Your task to perform on an android device: open sync settings in chrome Image 0: 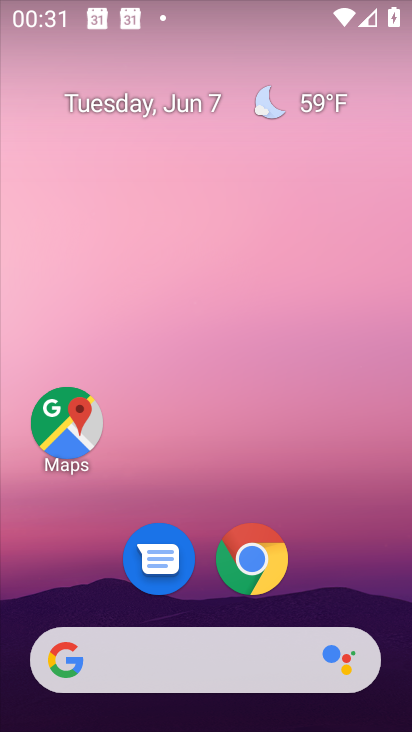
Step 0: click (257, 556)
Your task to perform on an android device: open sync settings in chrome Image 1: 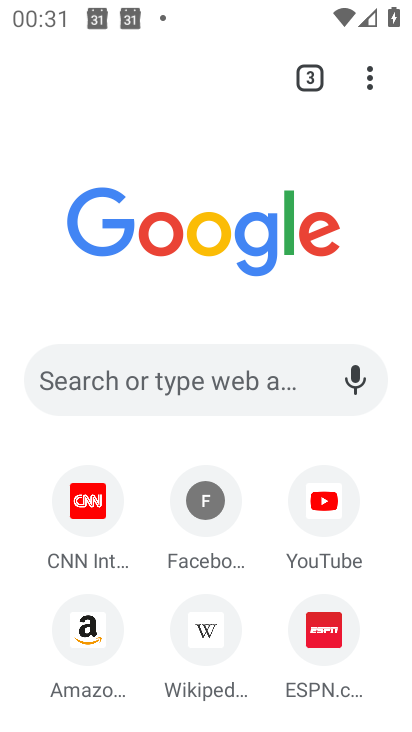
Step 1: click (362, 72)
Your task to perform on an android device: open sync settings in chrome Image 2: 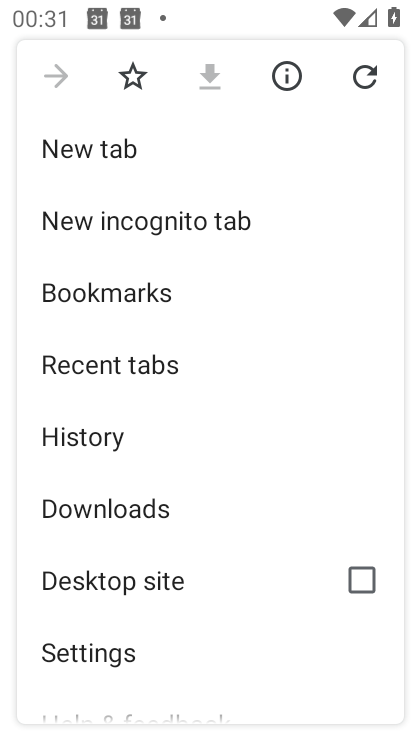
Step 2: click (107, 658)
Your task to perform on an android device: open sync settings in chrome Image 3: 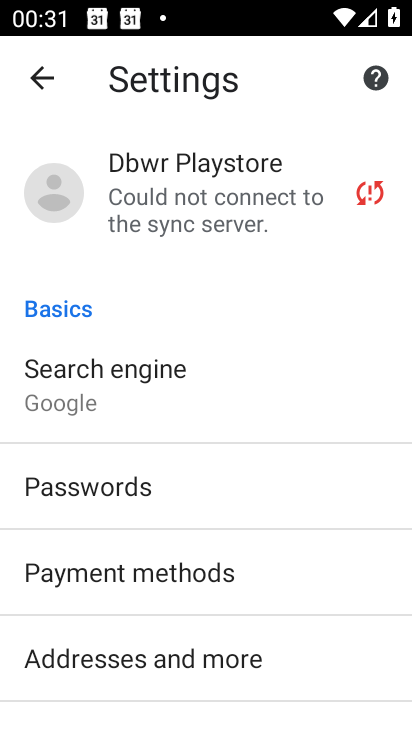
Step 3: drag from (169, 664) to (125, 363)
Your task to perform on an android device: open sync settings in chrome Image 4: 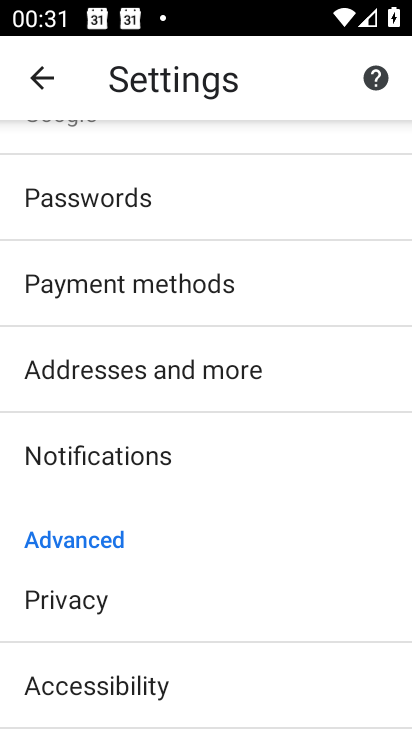
Step 4: drag from (140, 716) to (144, 412)
Your task to perform on an android device: open sync settings in chrome Image 5: 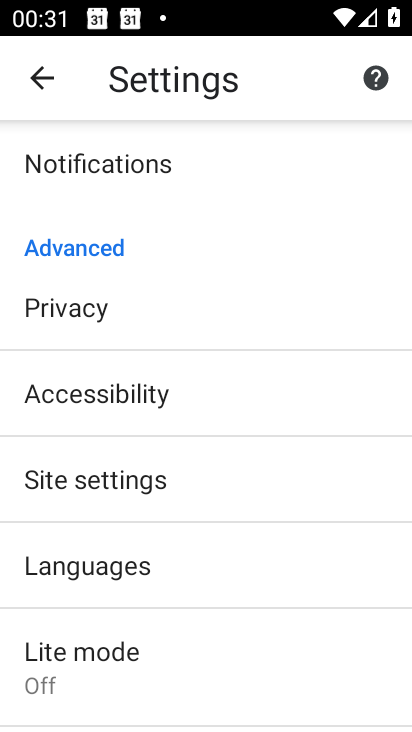
Step 5: click (121, 387)
Your task to perform on an android device: open sync settings in chrome Image 6: 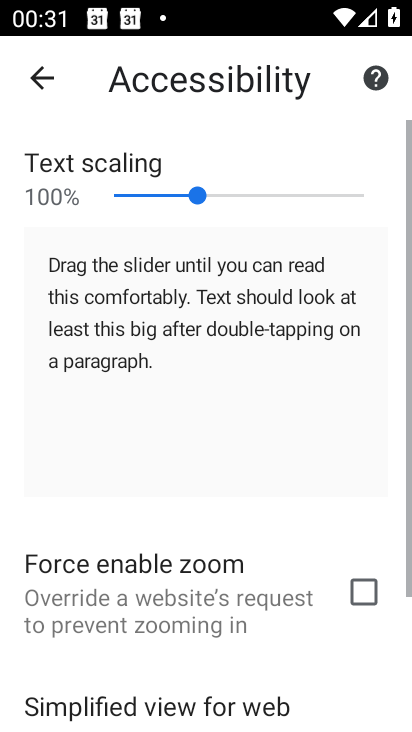
Step 6: drag from (118, 609) to (109, 283)
Your task to perform on an android device: open sync settings in chrome Image 7: 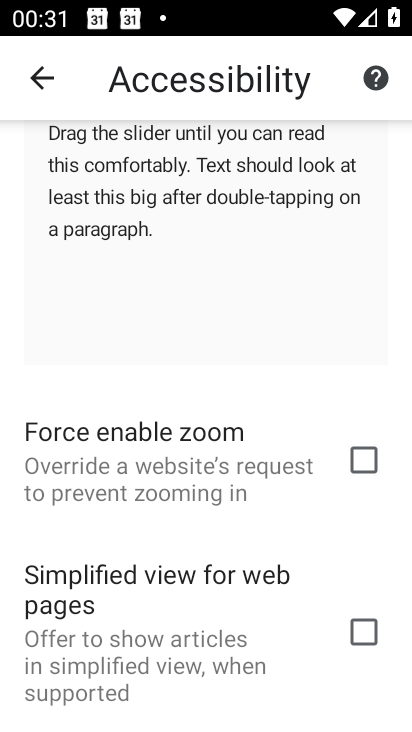
Step 7: click (55, 84)
Your task to perform on an android device: open sync settings in chrome Image 8: 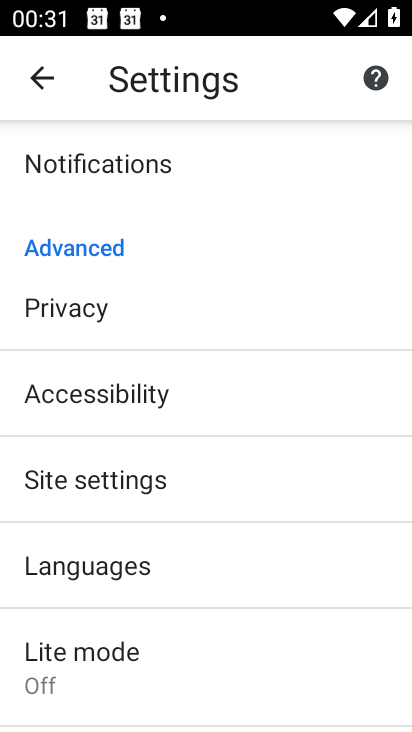
Step 8: click (74, 313)
Your task to perform on an android device: open sync settings in chrome Image 9: 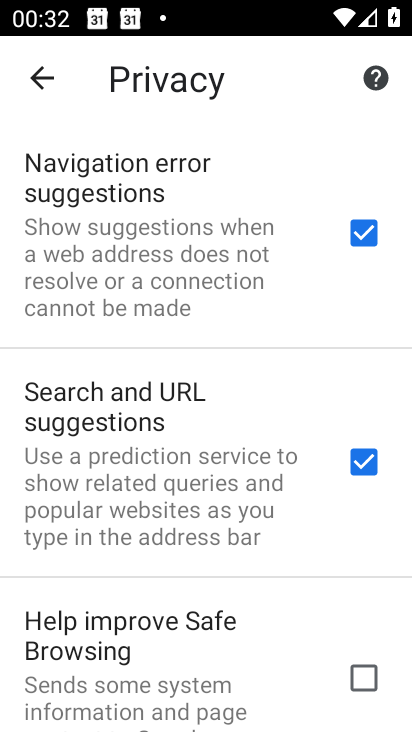
Step 9: drag from (131, 595) to (61, 288)
Your task to perform on an android device: open sync settings in chrome Image 10: 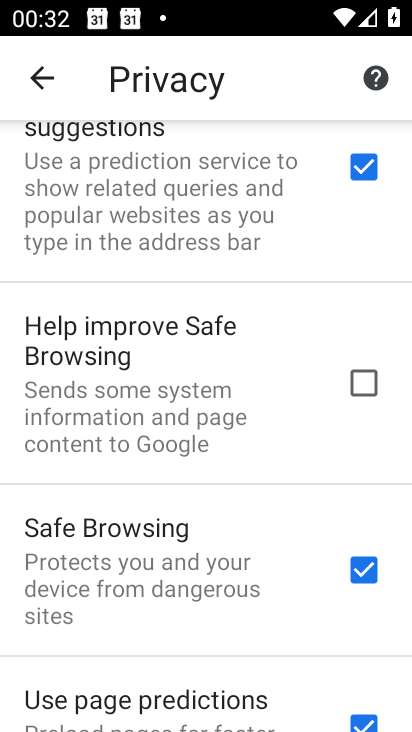
Step 10: drag from (117, 591) to (90, 291)
Your task to perform on an android device: open sync settings in chrome Image 11: 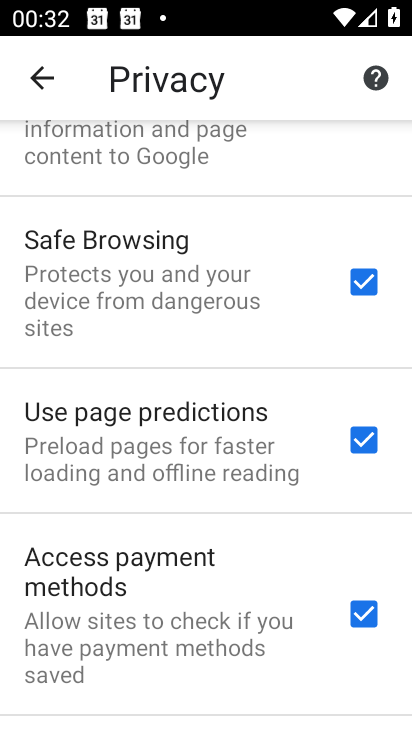
Step 11: drag from (93, 658) to (87, 391)
Your task to perform on an android device: open sync settings in chrome Image 12: 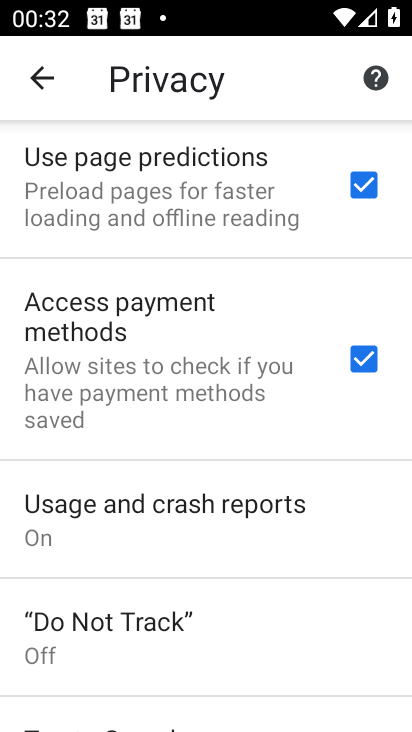
Step 12: drag from (163, 580) to (158, 456)
Your task to perform on an android device: open sync settings in chrome Image 13: 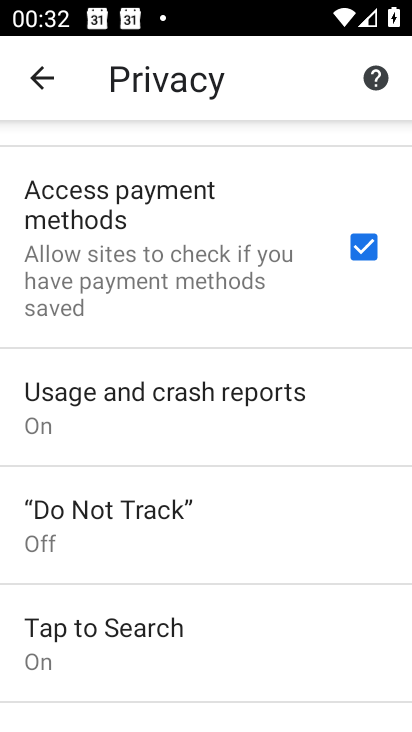
Step 13: drag from (110, 682) to (141, 518)
Your task to perform on an android device: open sync settings in chrome Image 14: 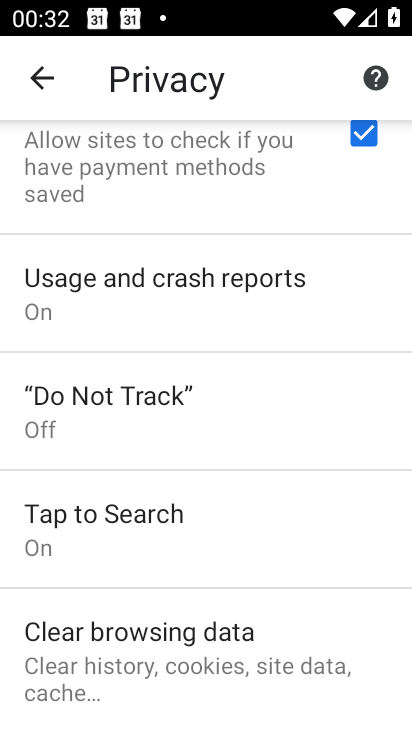
Step 14: drag from (111, 656) to (100, 479)
Your task to perform on an android device: open sync settings in chrome Image 15: 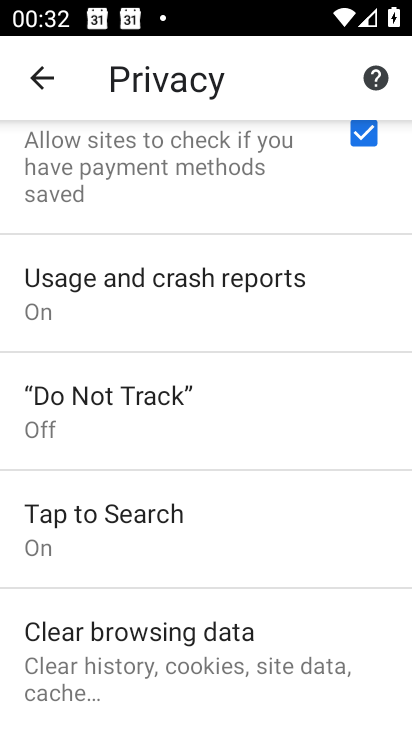
Step 15: click (44, 72)
Your task to perform on an android device: open sync settings in chrome Image 16: 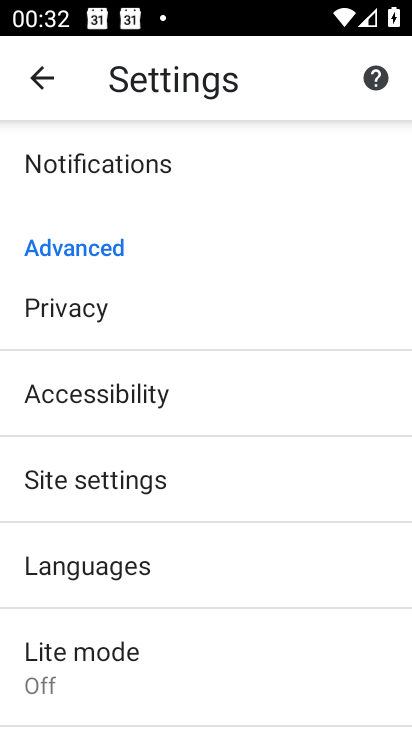
Step 16: drag from (155, 565) to (165, 267)
Your task to perform on an android device: open sync settings in chrome Image 17: 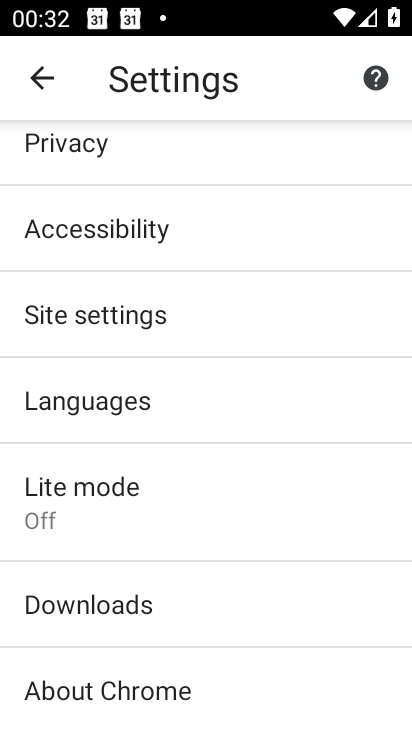
Step 17: click (26, 688)
Your task to perform on an android device: open sync settings in chrome Image 18: 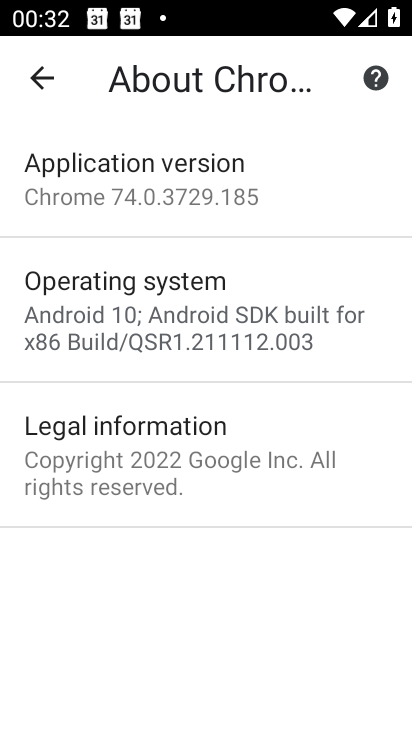
Step 18: click (45, 80)
Your task to perform on an android device: open sync settings in chrome Image 19: 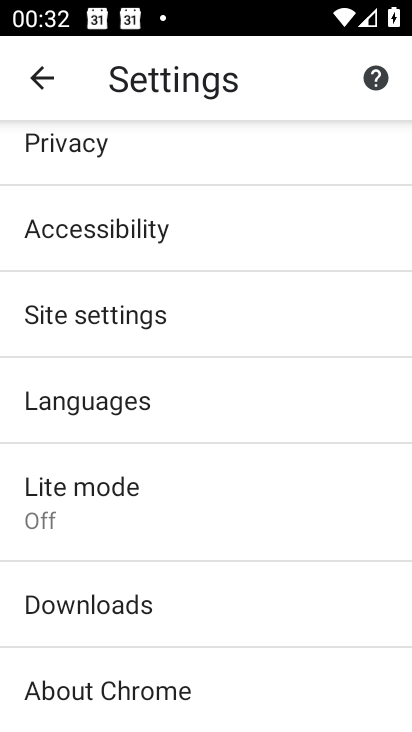
Step 19: drag from (95, 129) to (105, 579)
Your task to perform on an android device: open sync settings in chrome Image 20: 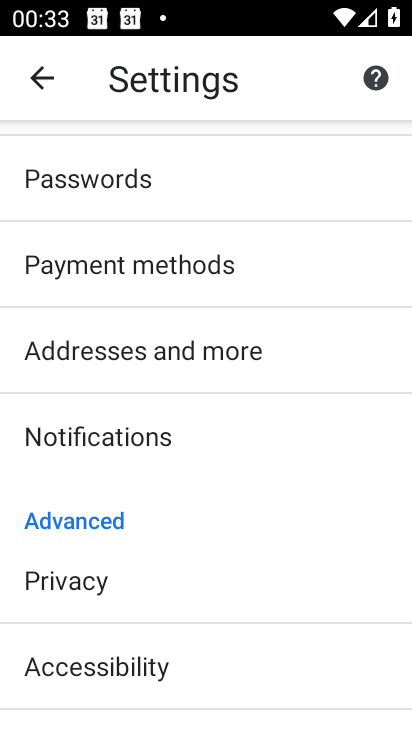
Step 20: click (127, 592)
Your task to perform on an android device: open sync settings in chrome Image 21: 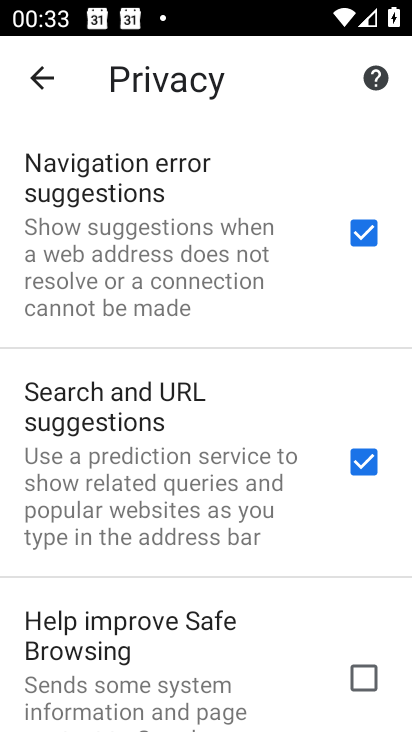
Step 21: drag from (73, 634) to (82, 323)
Your task to perform on an android device: open sync settings in chrome Image 22: 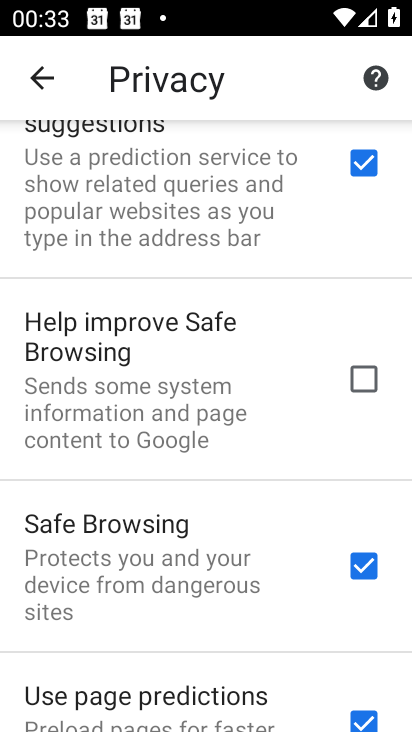
Step 22: drag from (118, 601) to (120, 278)
Your task to perform on an android device: open sync settings in chrome Image 23: 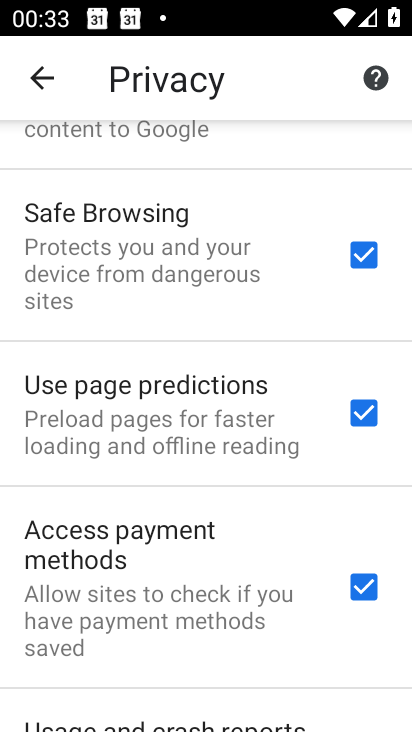
Step 23: drag from (166, 711) to (168, 568)
Your task to perform on an android device: open sync settings in chrome Image 24: 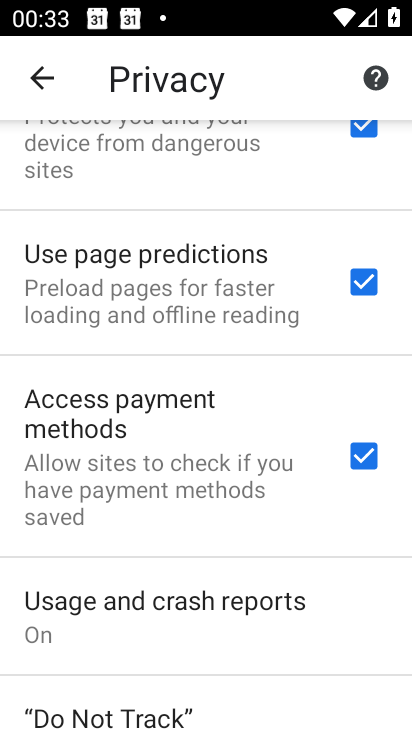
Step 24: drag from (128, 710) to (118, 547)
Your task to perform on an android device: open sync settings in chrome Image 25: 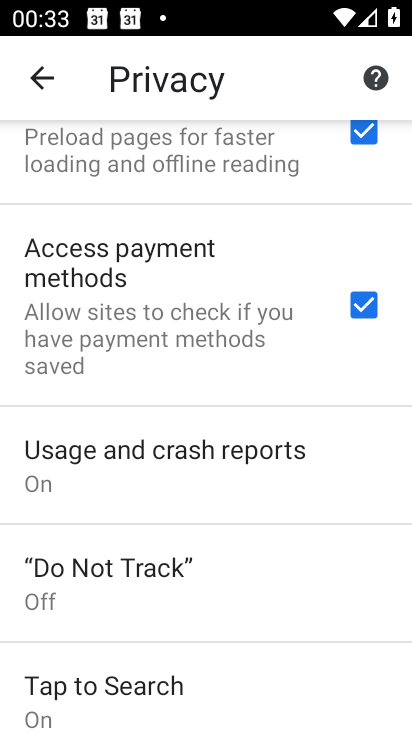
Step 25: click (44, 70)
Your task to perform on an android device: open sync settings in chrome Image 26: 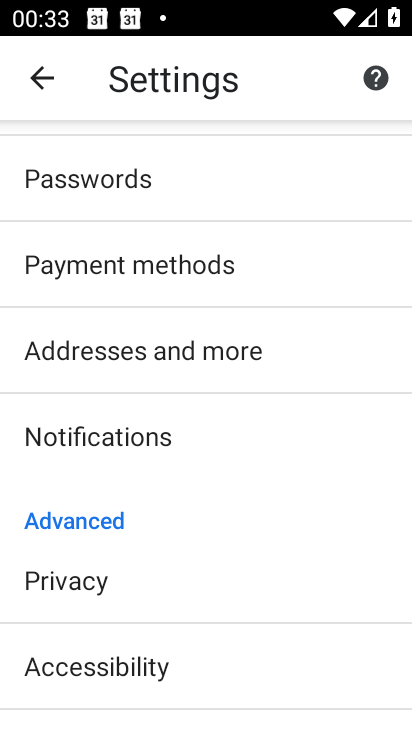
Step 26: task complete